Your task to perform on an android device: turn on notifications settings in the gmail app Image 0: 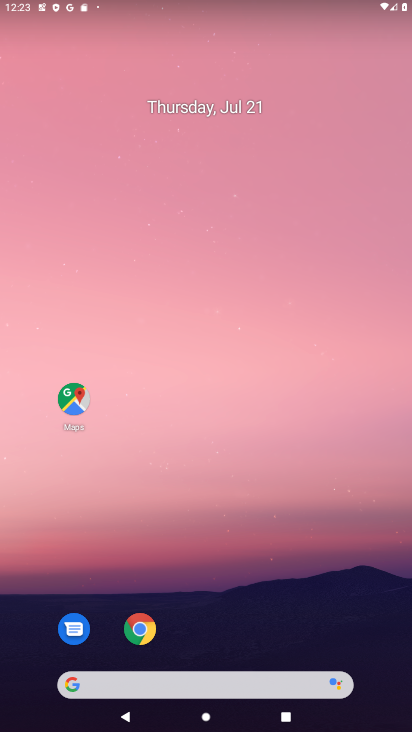
Step 0: drag from (336, 560) to (354, 109)
Your task to perform on an android device: turn on notifications settings in the gmail app Image 1: 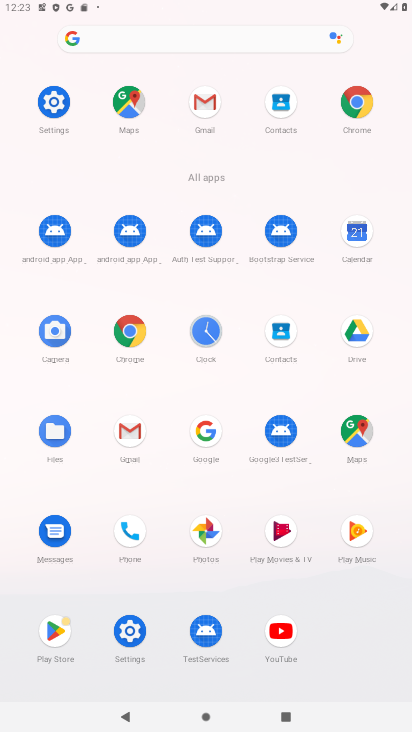
Step 1: click (128, 436)
Your task to perform on an android device: turn on notifications settings in the gmail app Image 2: 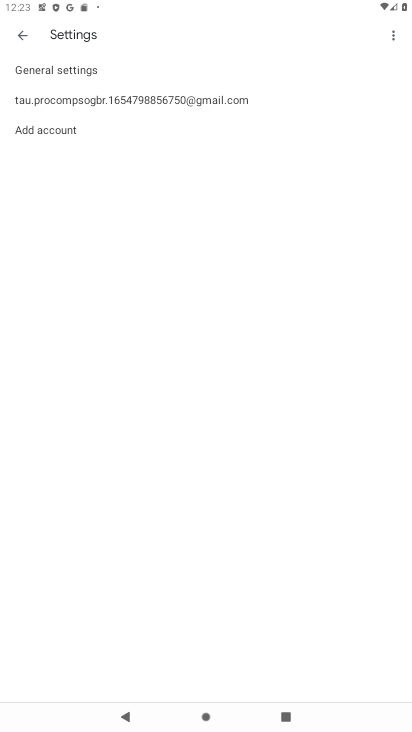
Step 2: press back button
Your task to perform on an android device: turn on notifications settings in the gmail app Image 3: 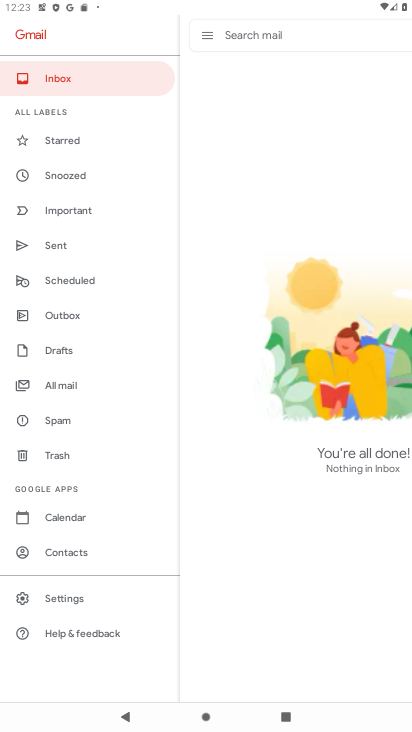
Step 3: click (105, 594)
Your task to perform on an android device: turn on notifications settings in the gmail app Image 4: 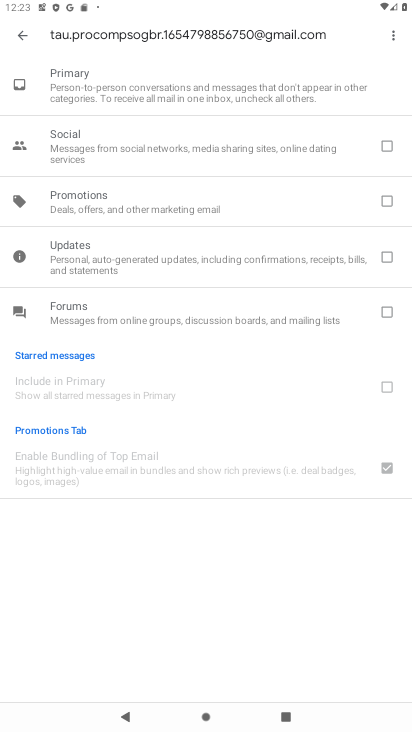
Step 4: press back button
Your task to perform on an android device: turn on notifications settings in the gmail app Image 5: 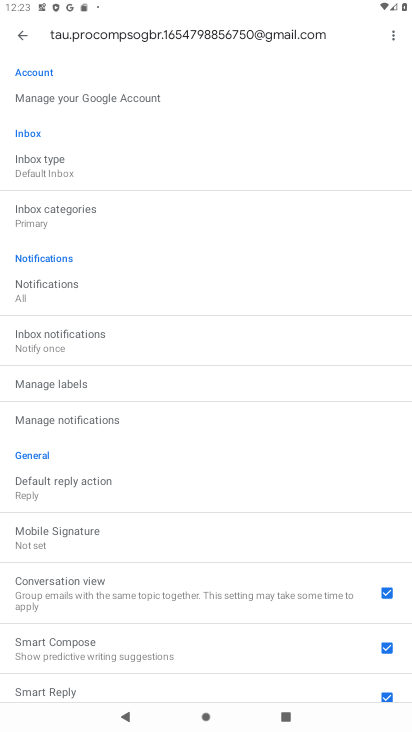
Step 5: drag from (222, 506) to (228, 414)
Your task to perform on an android device: turn on notifications settings in the gmail app Image 6: 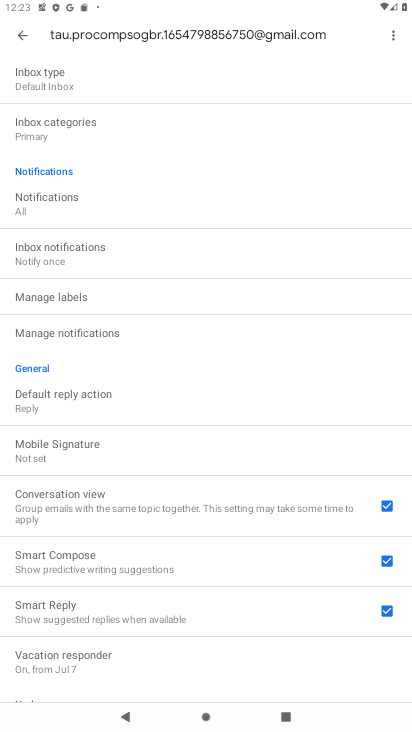
Step 6: drag from (241, 519) to (242, 409)
Your task to perform on an android device: turn on notifications settings in the gmail app Image 7: 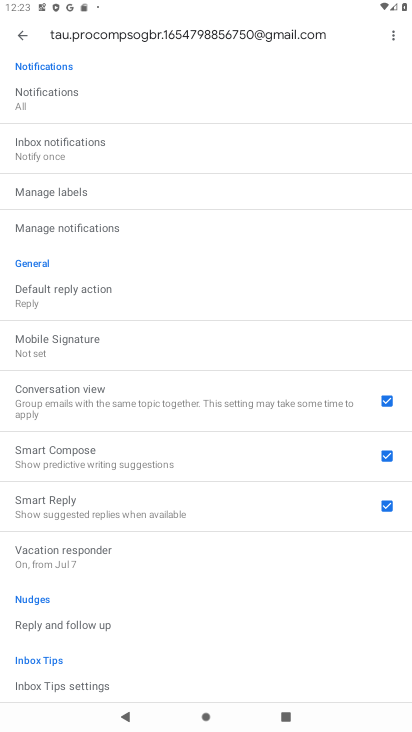
Step 7: drag from (271, 517) to (276, 374)
Your task to perform on an android device: turn on notifications settings in the gmail app Image 8: 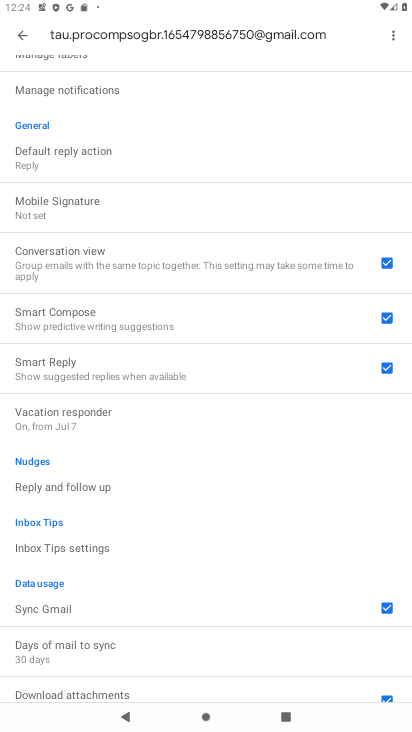
Step 8: drag from (270, 240) to (279, 372)
Your task to perform on an android device: turn on notifications settings in the gmail app Image 9: 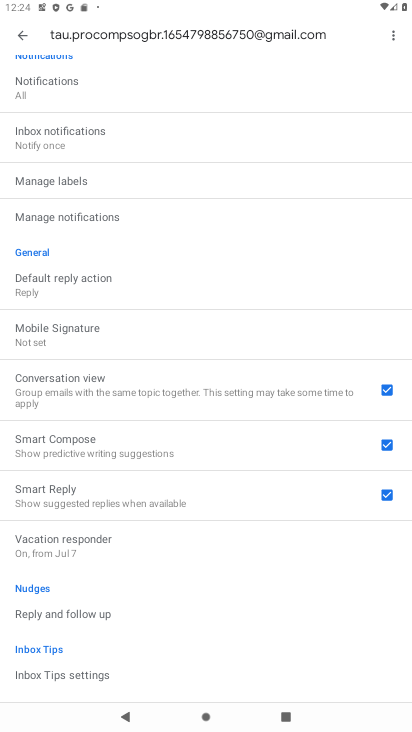
Step 9: drag from (276, 203) to (281, 327)
Your task to perform on an android device: turn on notifications settings in the gmail app Image 10: 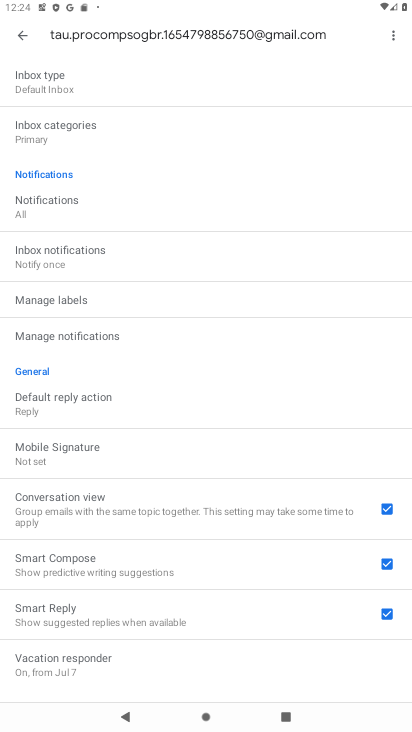
Step 10: click (191, 335)
Your task to perform on an android device: turn on notifications settings in the gmail app Image 11: 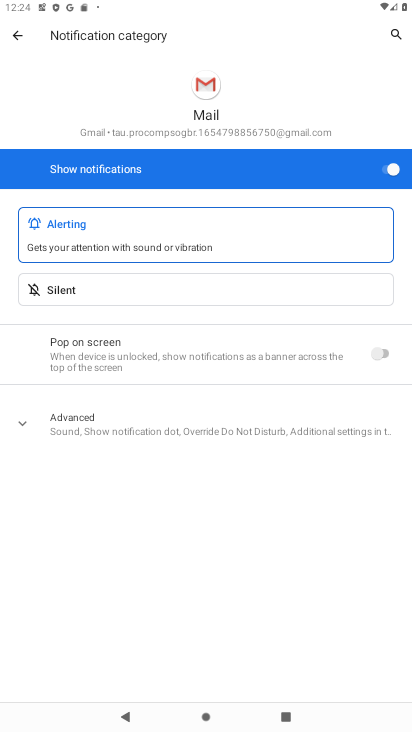
Step 11: task complete